Your task to perform on an android device: Show me popular games on the Play Store Image 0: 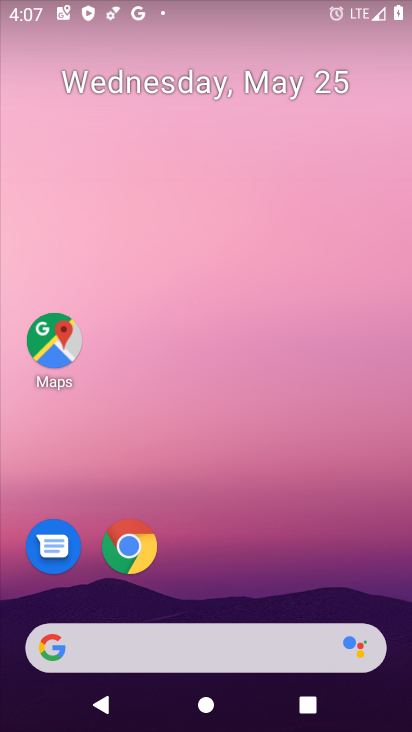
Step 0: drag from (254, 394) to (259, 0)
Your task to perform on an android device: Show me popular games on the Play Store Image 1: 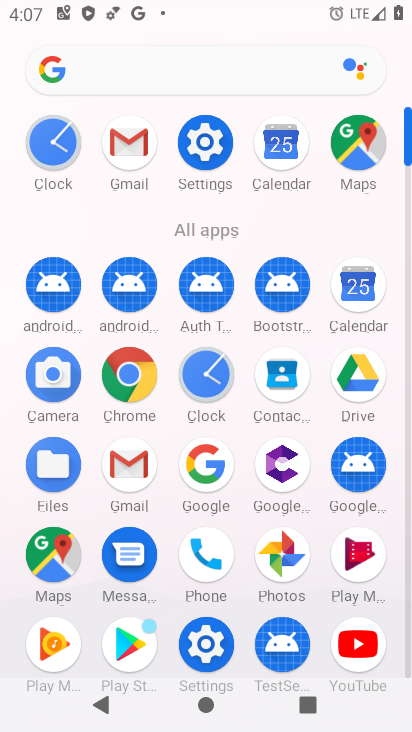
Step 1: drag from (197, 635) to (229, 275)
Your task to perform on an android device: Show me popular games on the Play Store Image 2: 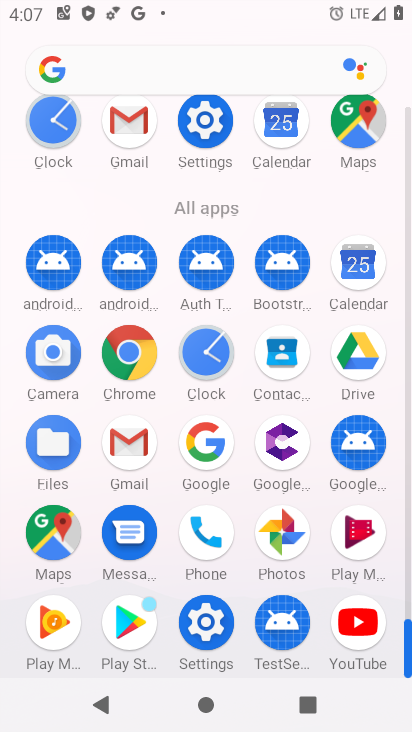
Step 2: click (127, 621)
Your task to perform on an android device: Show me popular games on the Play Store Image 3: 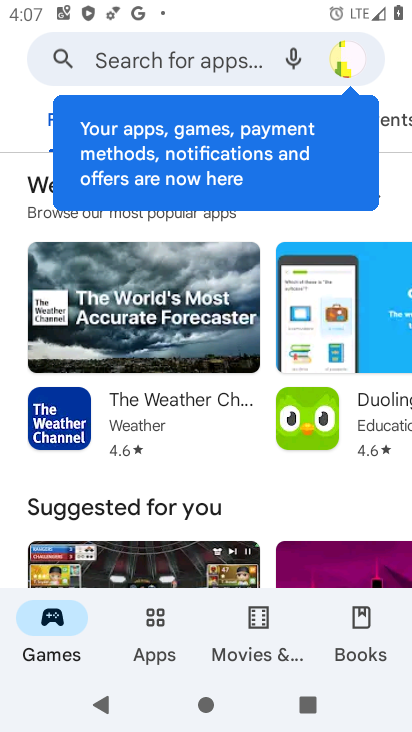
Step 3: click (39, 624)
Your task to perform on an android device: Show me popular games on the Play Store Image 4: 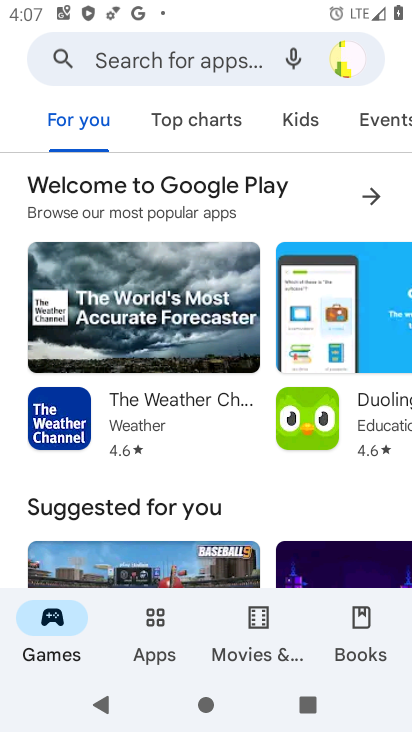
Step 4: click (189, 129)
Your task to perform on an android device: Show me popular games on the Play Store Image 5: 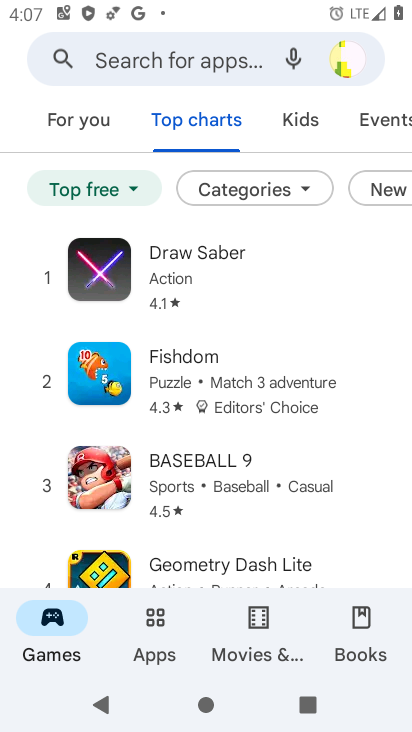
Step 5: task complete